Your task to perform on an android device: What's the weather going to be tomorrow? Image 0: 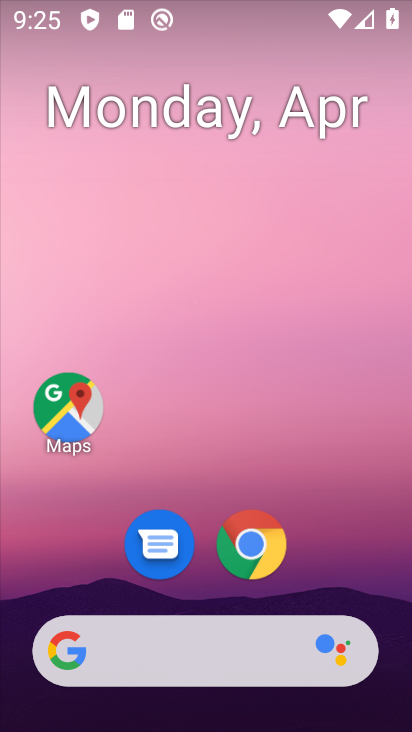
Step 0: click (263, 567)
Your task to perform on an android device: What's the weather going to be tomorrow? Image 1: 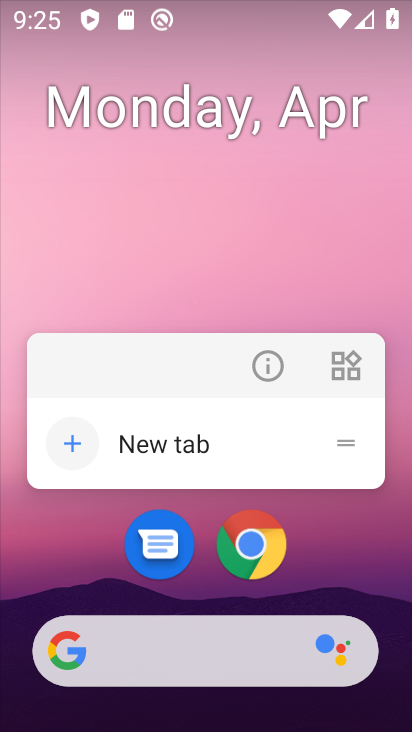
Step 1: click (388, 587)
Your task to perform on an android device: What's the weather going to be tomorrow? Image 2: 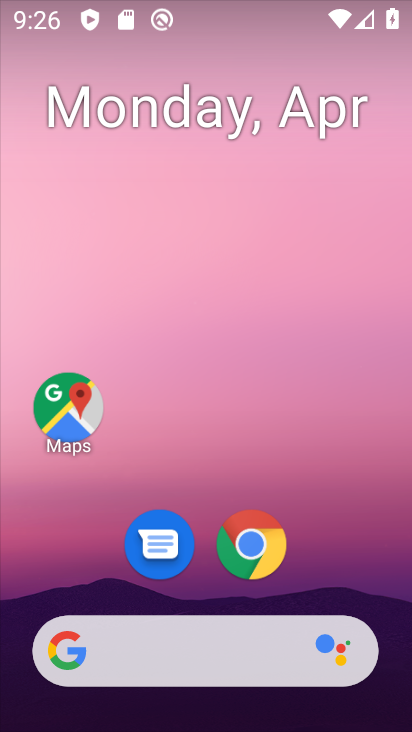
Step 2: drag from (388, 587) to (332, 139)
Your task to perform on an android device: What's the weather going to be tomorrow? Image 3: 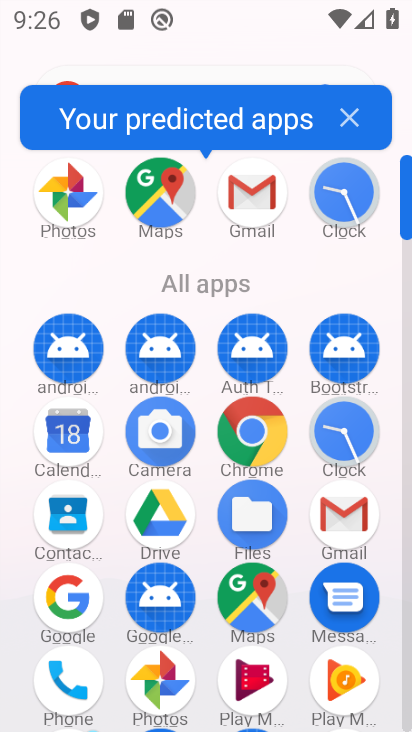
Step 3: click (266, 437)
Your task to perform on an android device: What's the weather going to be tomorrow? Image 4: 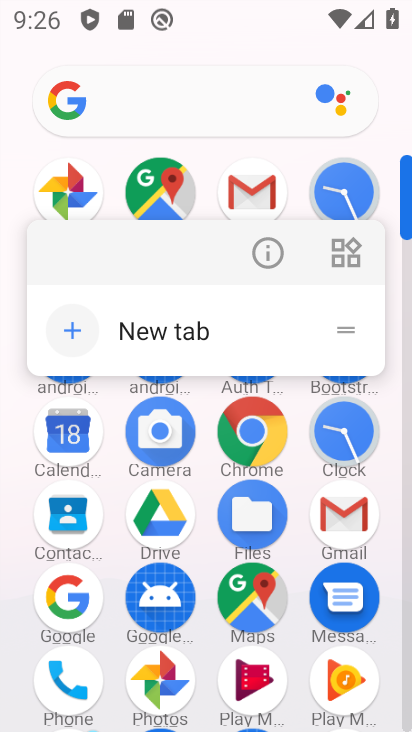
Step 4: click (250, 436)
Your task to perform on an android device: What's the weather going to be tomorrow? Image 5: 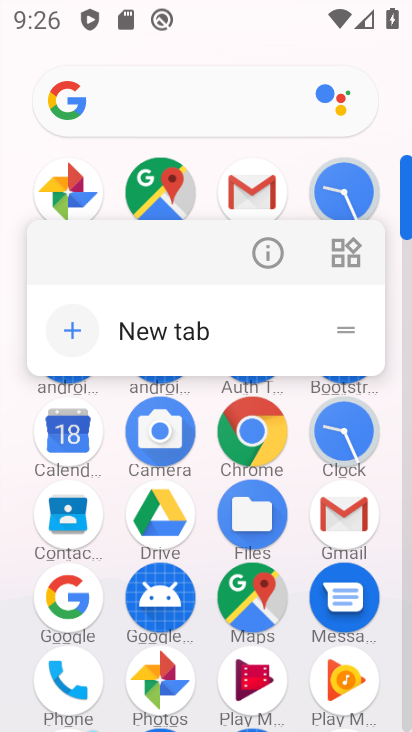
Step 5: click (250, 436)
Your task to perform on an android device: What's the weather going to be tomorrow? Image 6: 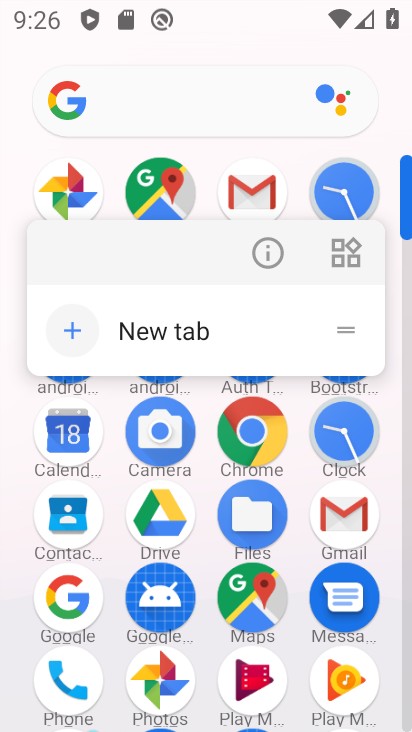
Step 6: click (78, 329)
Your task to perform on an android device: What's the weather going to be tomorrow? Image 7: 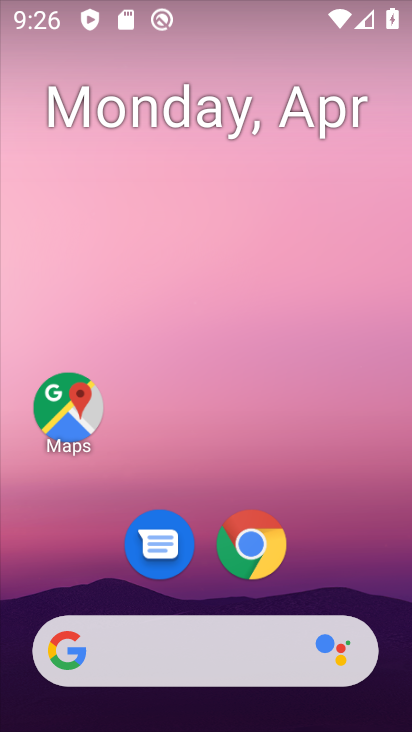
Step 7: click (248, 551)
Your task to perform on an android device: What's the weather going to be tomorrow? Image 8: 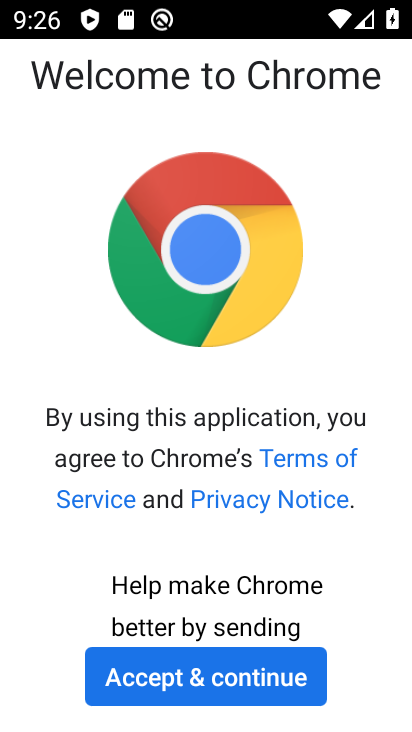
Step 8: click (242, 688)
Your task to perform on an android device: What's the weather going to be tomorrow? Image 9: 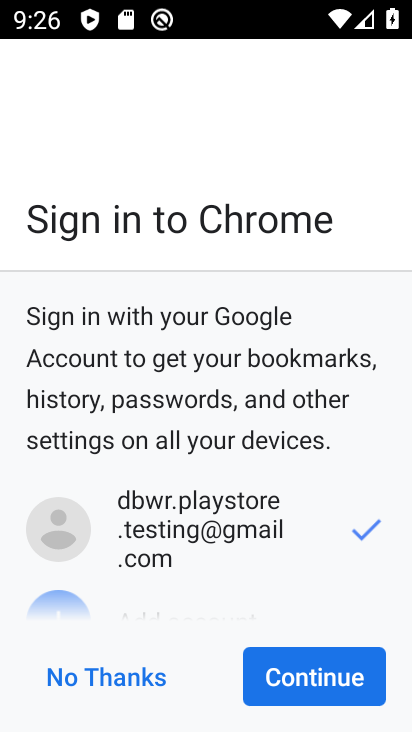
Step 9: click (288, 678)
Your task to perform on an android device: What's the weather going to be tomorrow? Image 10: 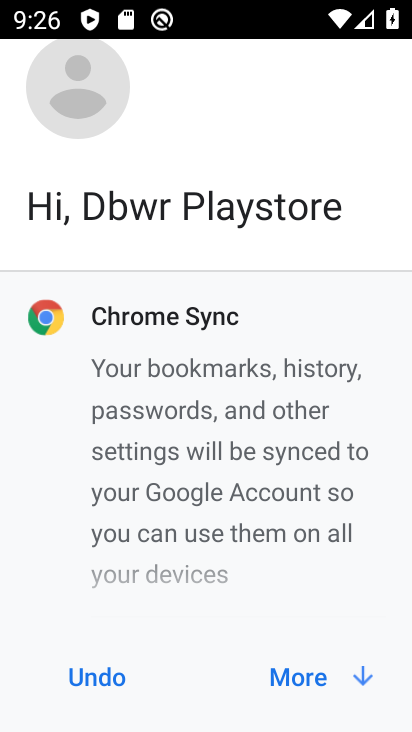
Step 10: click (288, 678)
Your task to perform on an android device: What's the weather going to be tomorrow? Image 11: 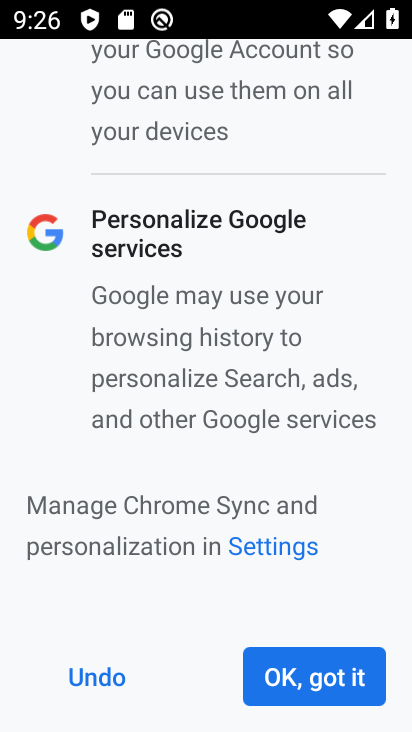
Step 11: click (288, 678)
Your task to perform on an android device: What's the weather going to be tomorrow? Image 12: 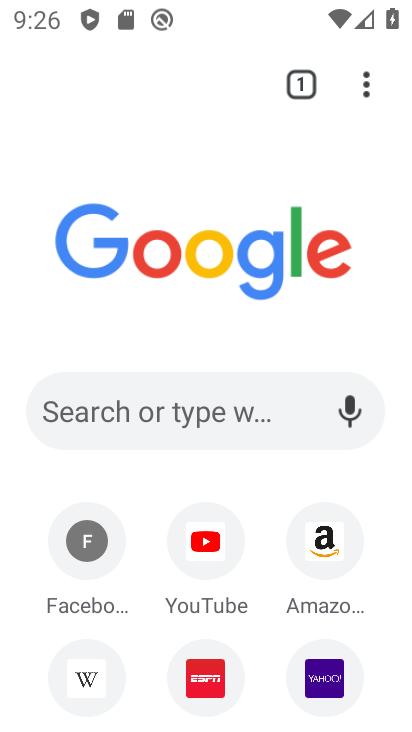
Step 12: click (272, 420)
Your task to perform on an android device: What's the weather going to be tomorrow? Image 13: 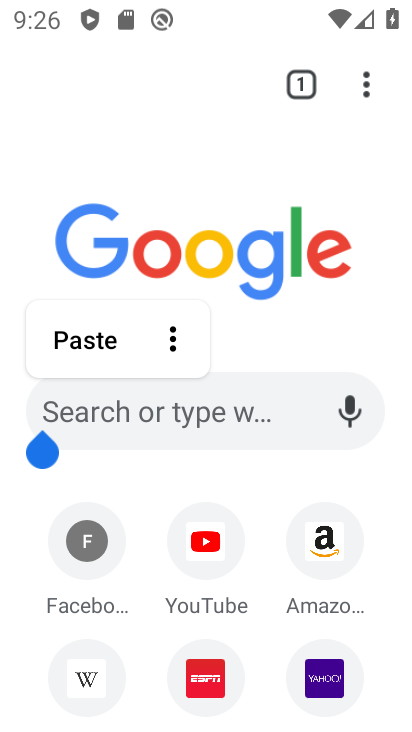
Step 13: click (272, 420)
Your task to perform on an android device: What's the weather going to be tomorrow? Image 14: 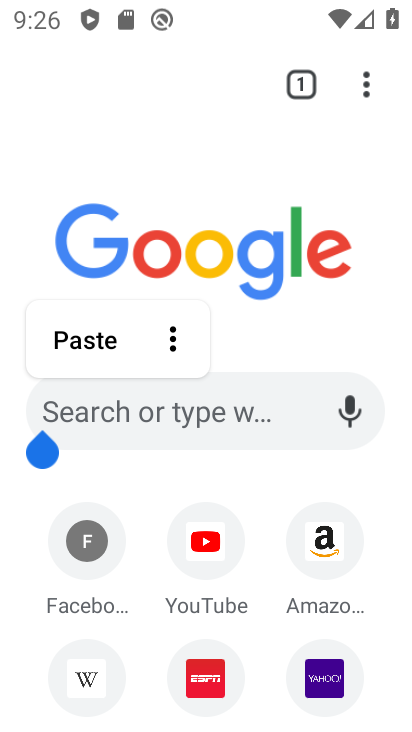
Step 14: click (280, 412)
Your task to perform on an android device: What's the weather going to be tomorrow? Image 15: 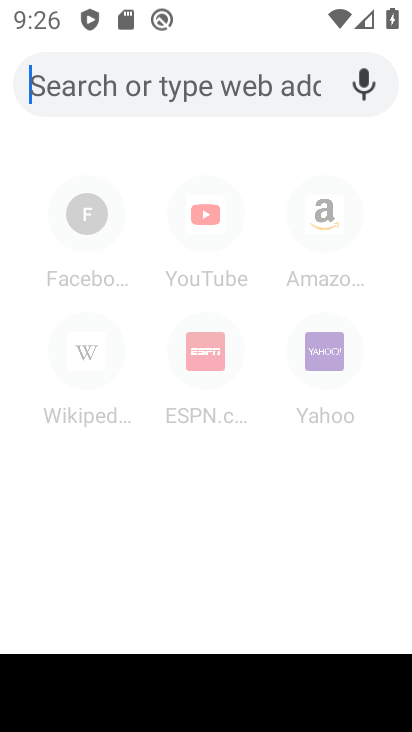
Step 15: type "What's the weather going to be tomorrow?"
Your task to perform on an android device: What's the weather going to be tomorrow? Image 16: 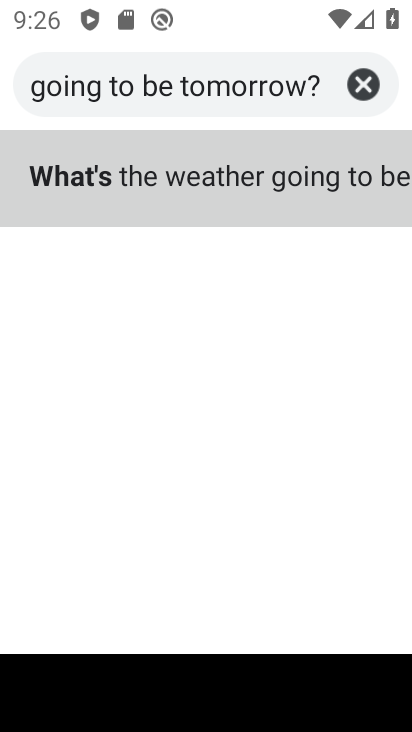
Step 16: press enter
Your task to perform on an android device: What's the weather going to be tomorrow? Image 17: 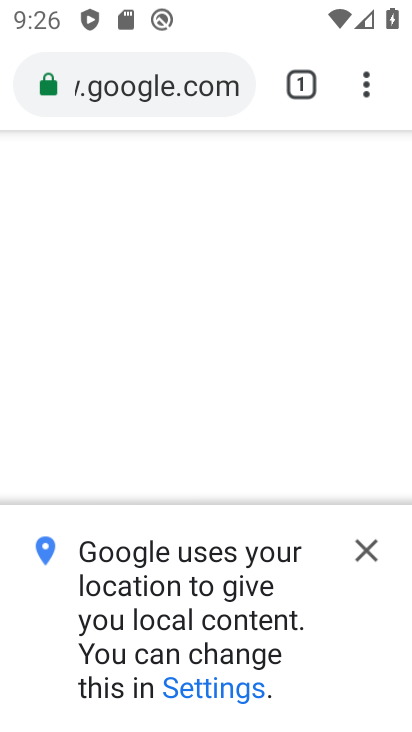
Step 17: click (375, 544)
Your task to perform on an android device: What's the weather going to be tomorrow? Image 18: 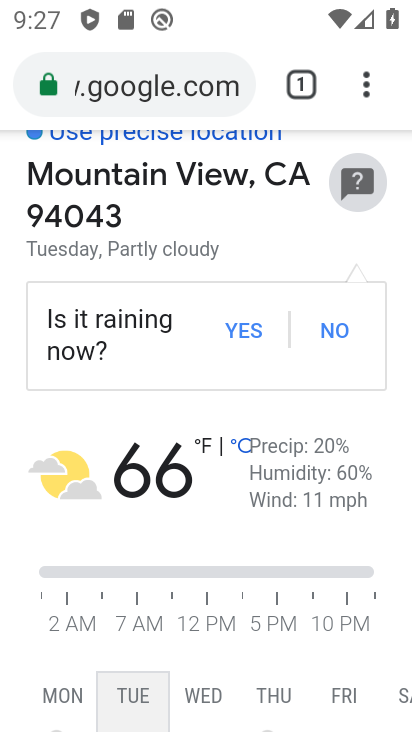
Step 18: task complete